Your task to perform on an android device: change notifications settings Image 0: 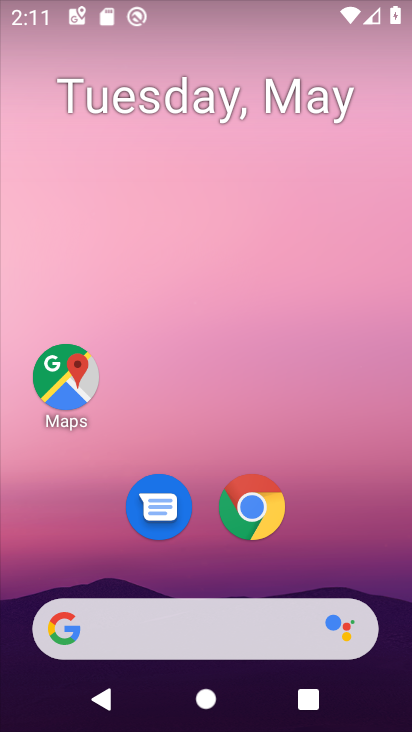
Step 0: drag from (208, 532) to (218, 164)
Your task to perform on an android device: change notifications settings Image 1: 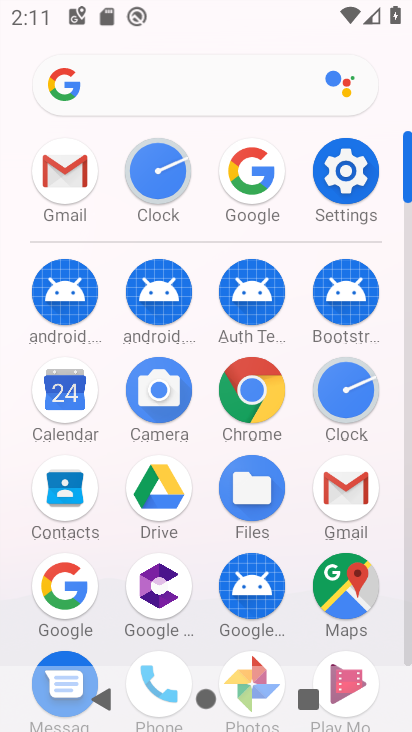
Step 1: click (327, 173)
Your task to perform on an android device: change notifications settings Image 2: 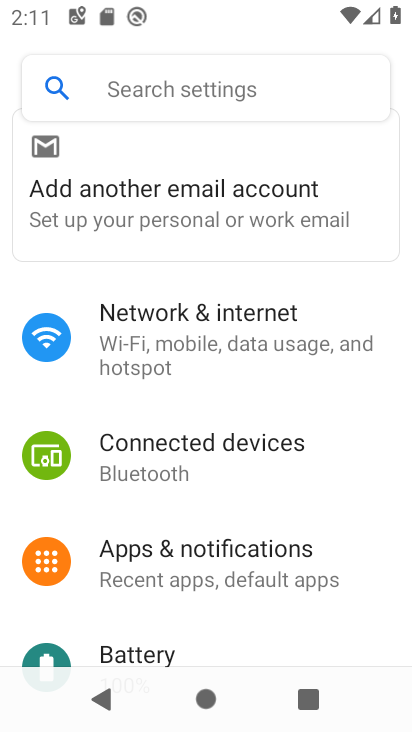
Step 2: click (246, 539)
Your task to perform on an android device: change notifications settings Image 3: 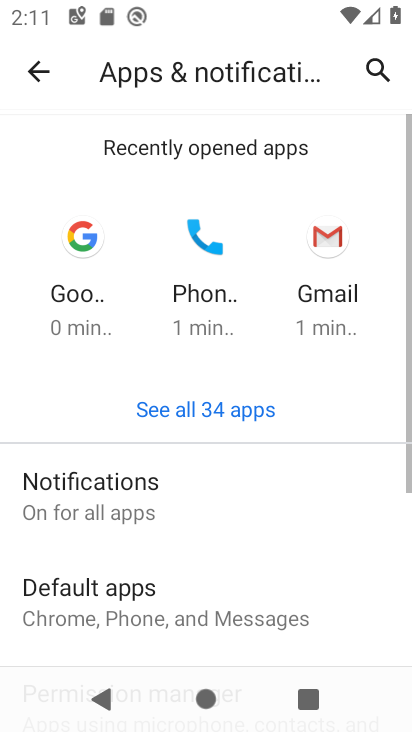
Step 3: click (145, 510)
Your task to perform on an android device: change notifications settings Image 4: 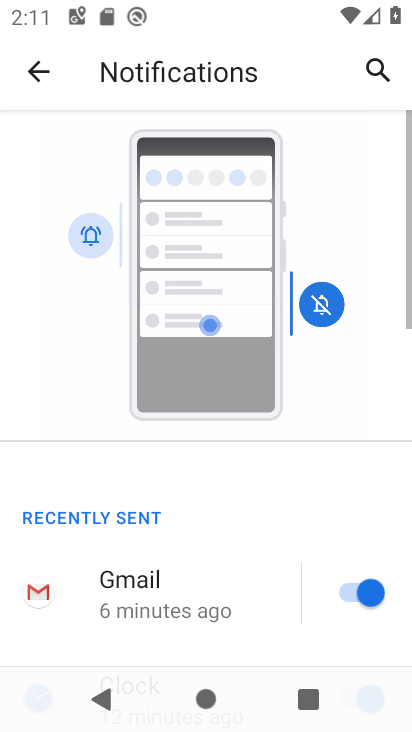
Step 4: drag from (186, 570) to (255, 209)
Your task to perform on an android device: change notifications settings Image 5: 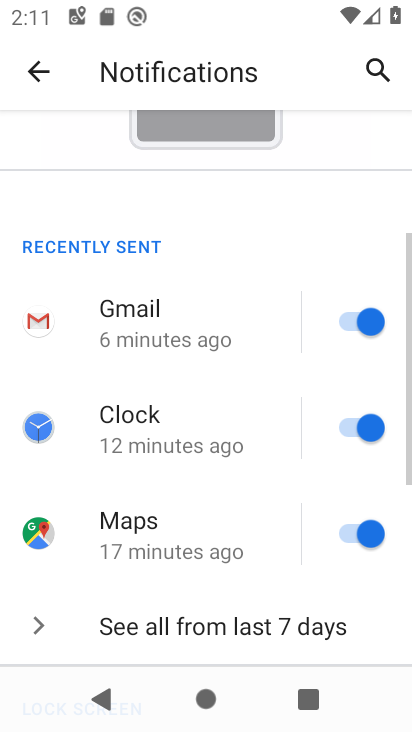
Step 5: drag from (237, 484) to (300, 184)
Your task to perform on an android device: change notifications settings Image 6: 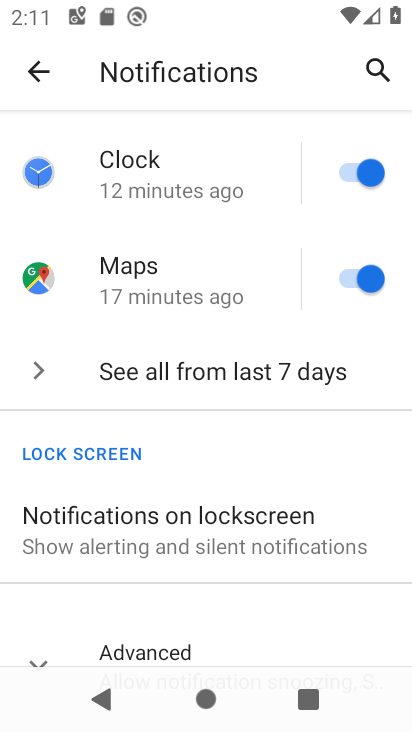
Step 6: drag from (268, 506) to (292, 166)
Your task to perform on an android device: change notifications settings Image 7: 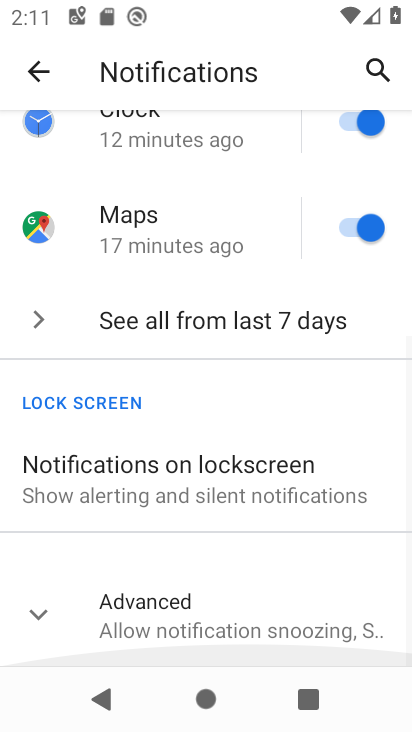
Step 7: drag from (280, 518) to (282, 324)
Your task to perform on an android device: change notifications settings Image 8: 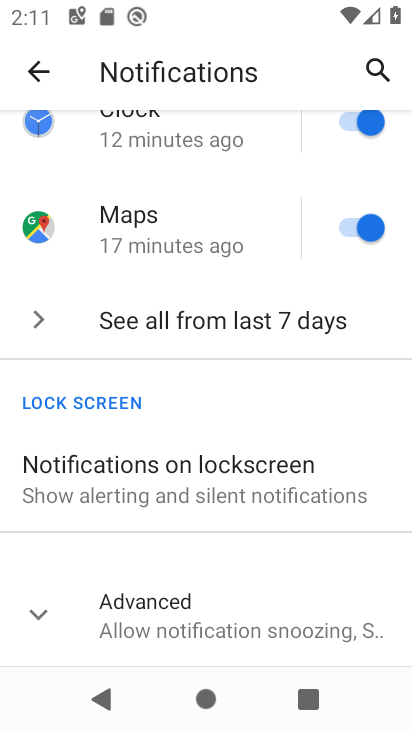
Step 8: click (197, 489)
Your task to perform on an android device: change notifications settings Image 9: 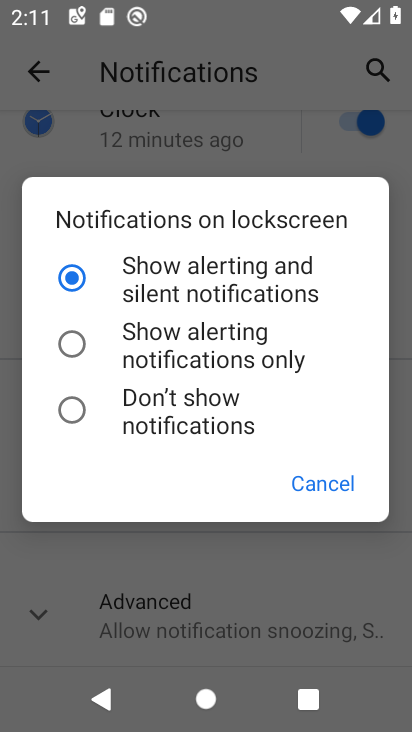
Step 9: click (185, 420)
Your task to perform on an android device: change notifications settings Image 10: 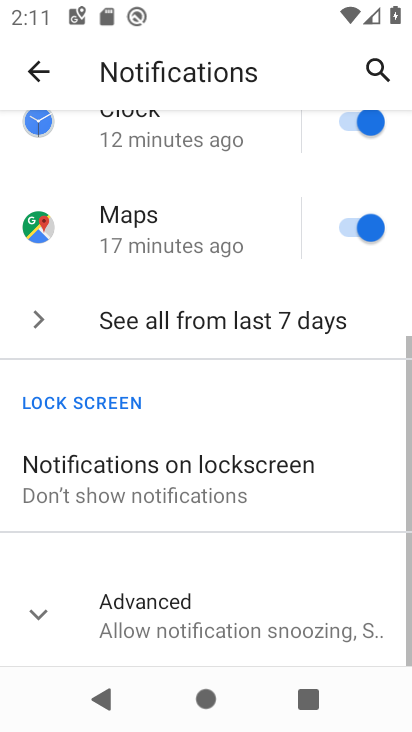
Step 10: task complete